Your task to perform on an android device: Clear the shopping cart on newegg.com. Add "usb-a" to the cart on newegg.com, then select checkout. Image 0: 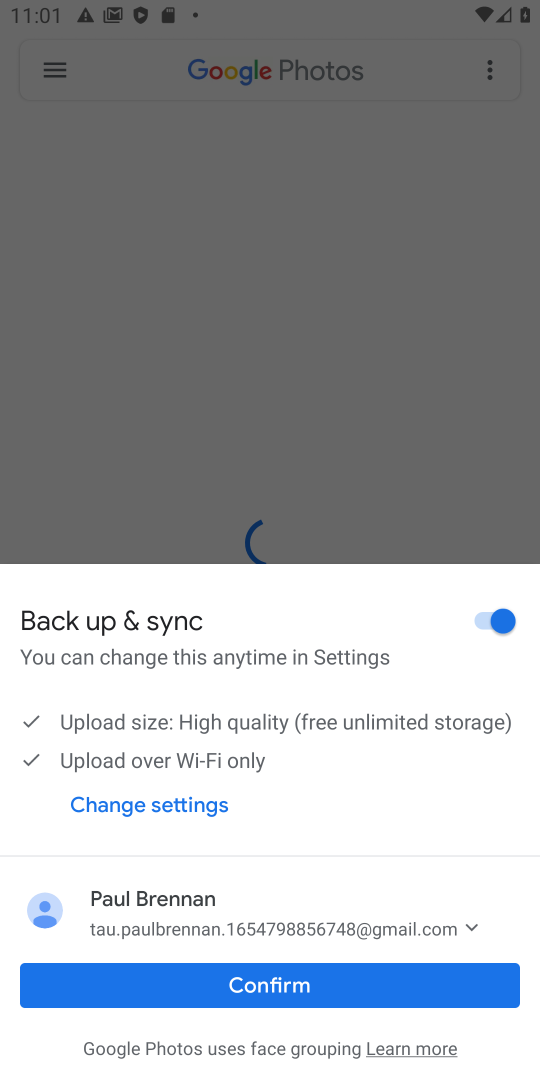
Step 0: press home button
Your task to perform on an android device: Clear the shopping cart on newegg.com. Add "usb-a" to the cart on newegg.com, then select checkout. Image 1: 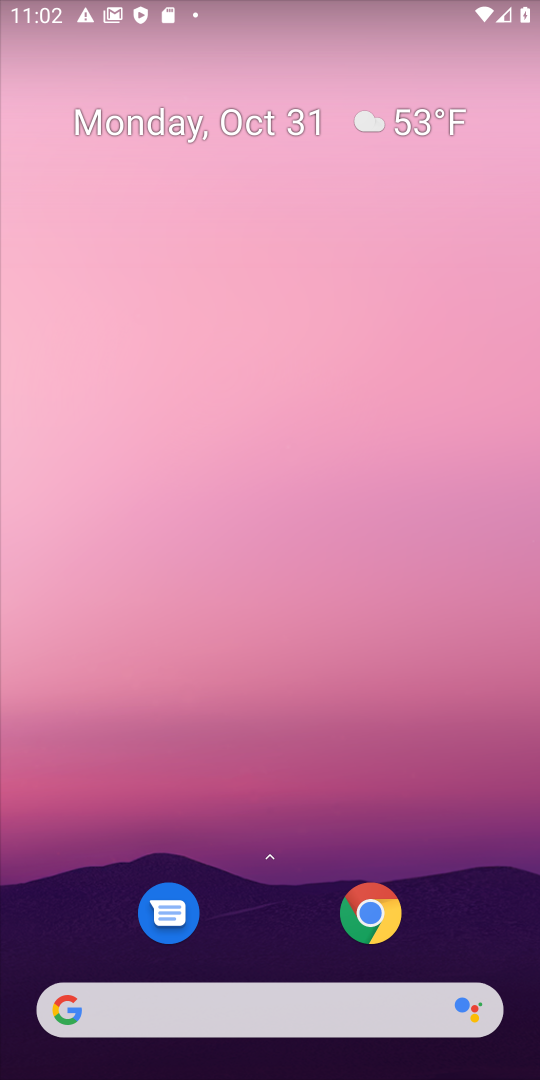
Step 1: click (233, 991)
Your task to perform on an android device: Clear the shopping cart on newegg.com. Add "usb-a" to the cart on newegg.com, then select checkout. Image 2: 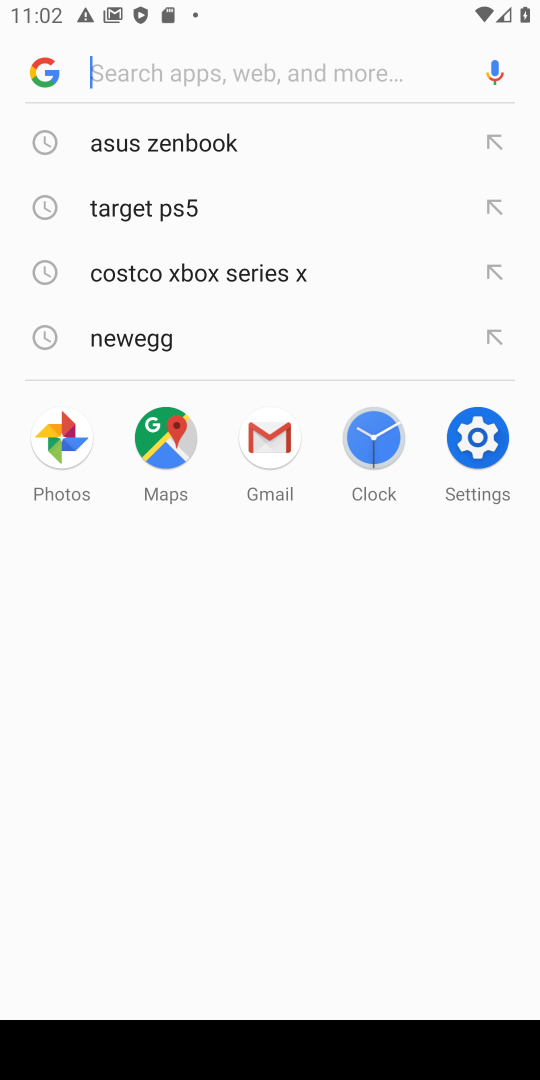
Step 2: type "neweegg"
Your task to perform on an android device: Clear the shopping cart on newegg.com. Add "usb-a" to the cart on newegg.com, then select checkout. Image 3: 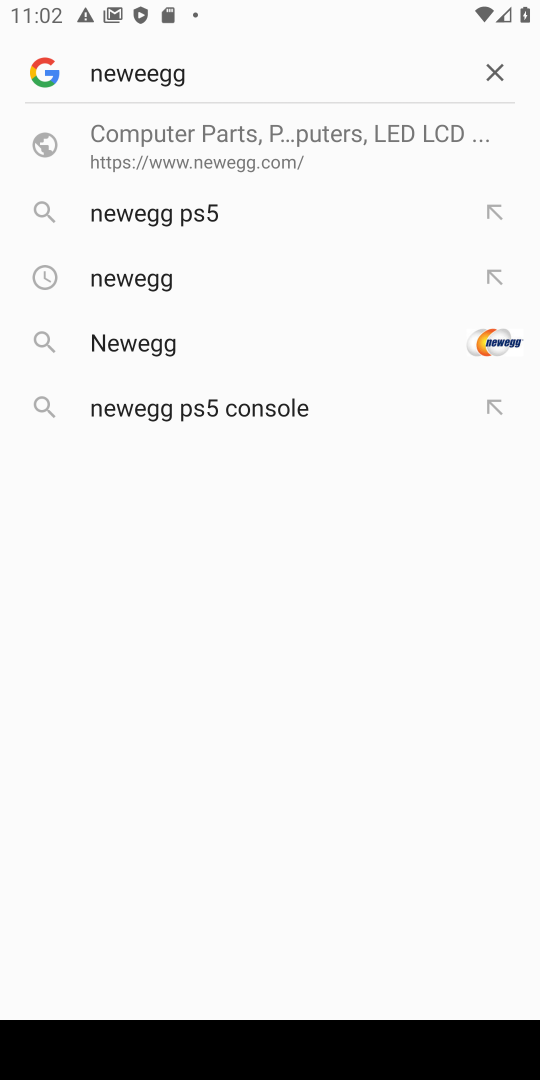
Step 3: click (153, 274)
Your task to perform on an android device: Clear the shopping cart on newegg.com. Add "usb-a" to the cart on newegg.com, then select checkout. Image 4: 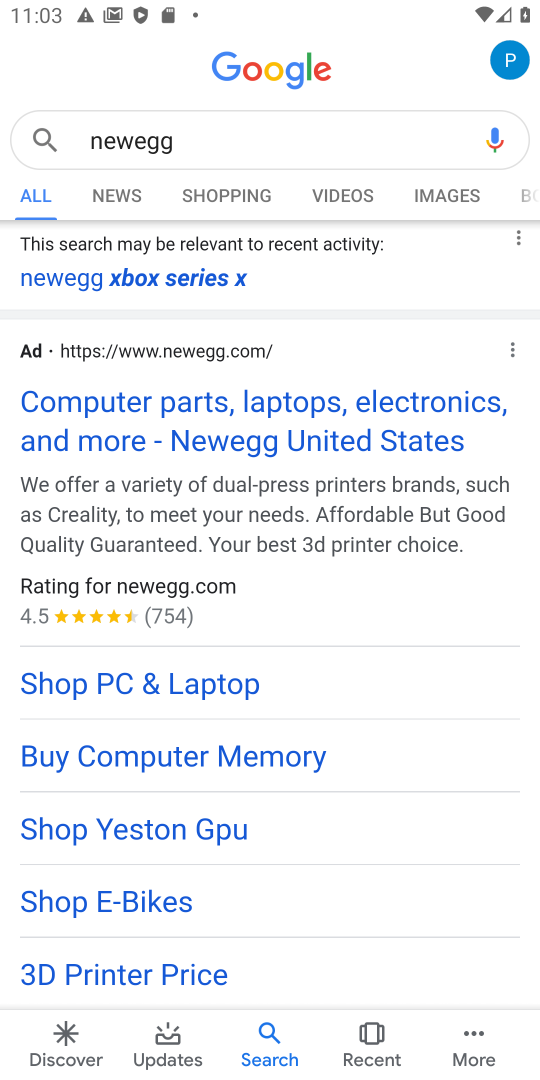
Step 4: click (173, 628)
Your task to perform on an android device: Clear the shopping cart on newegg.com. Add "usb-a" to the cart on newegg.com, then select checkout. Image 5: 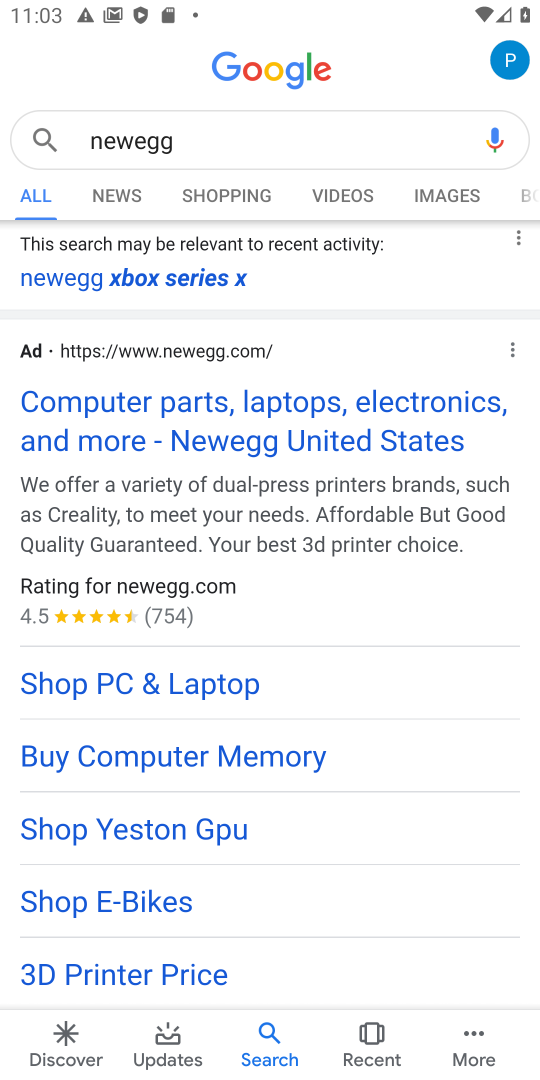
Step 5: click (162, 659)
Your task to perform on an android device: Clear the shopping cart on newegg.com. Add "usb-a" to the cart on newegg.com, then select checkout. Image 6: 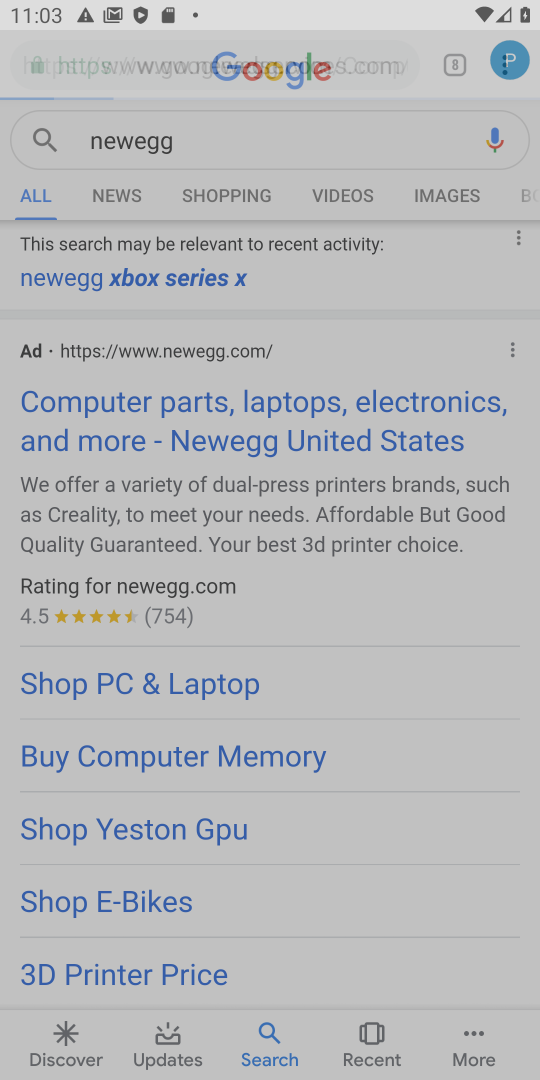
Step 6: click (161, 659)
Your task to perform on an android device: Clear the shopping cart on newegg.com. Add "usb-a" to the cart on newegg.com, then select checkout. Image 7: 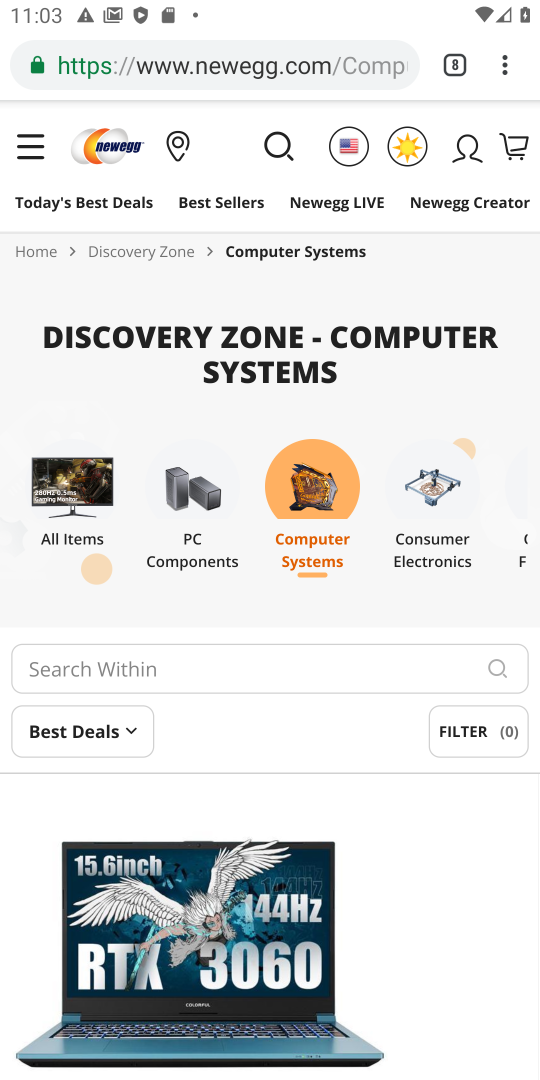
Step 7: click (161, 659)
Your task to perform on an android device: Clear the shopping cart on newegg.com. Add "usb-a" to the cart on newegg.com, then select checkout. Image 8: 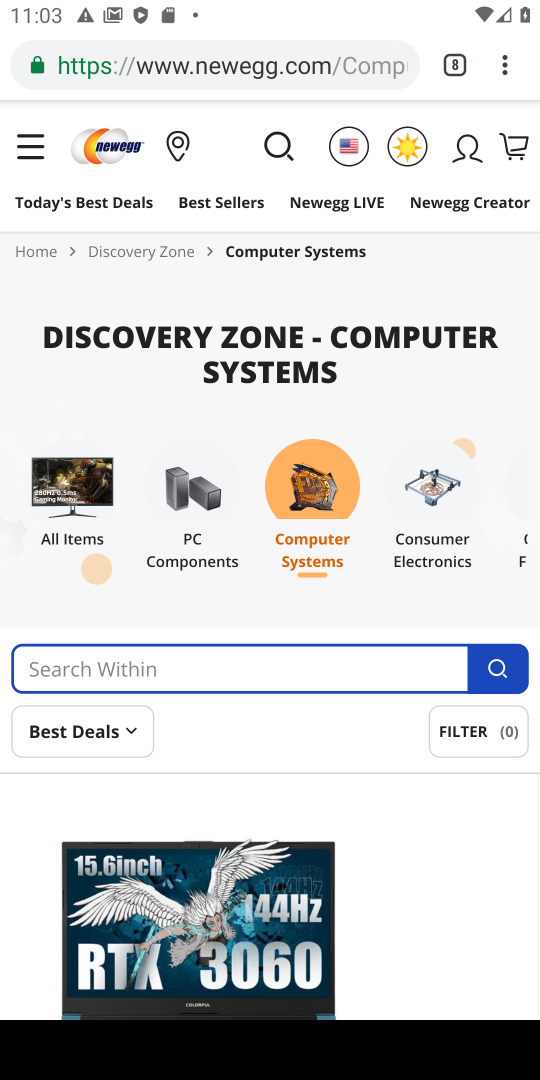
Step 8: type "usb-a"
Your task to perform on an android device: Clear the shopping cart on newegg.com. Add "usb-a" to the cart on newegg.com, then select checkout. Image 9: 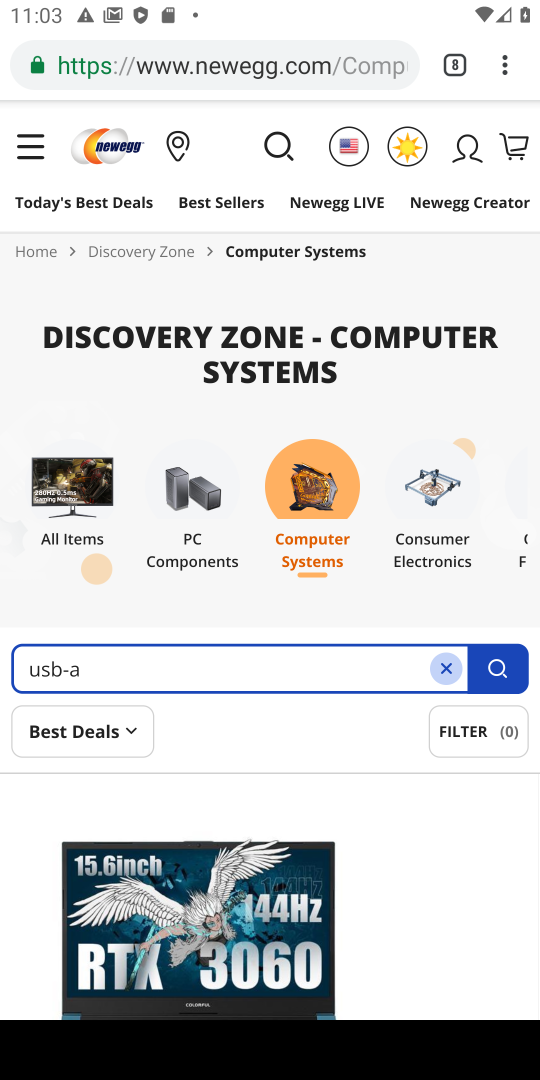
Step 9: click (496, 668)
Your task to perform on an android device: Clear the shopping cart on newegg.com. Add "usb-a" to the cart on newegg.com, then select checkout. Image 10: 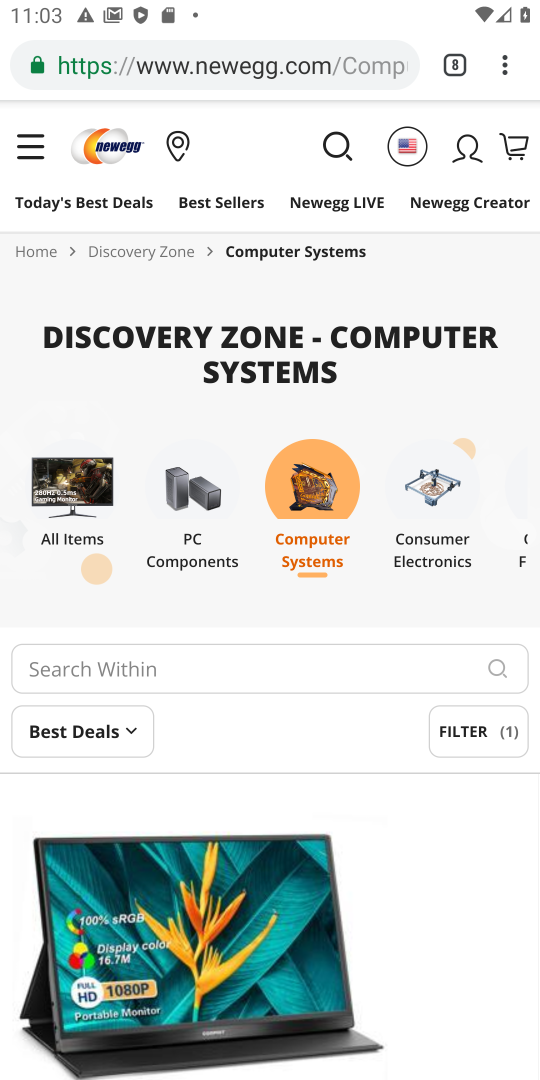
Step 10: task complete